Your task to perform on an android device: Search for "bose soundlink" on walmart, select the first entry, add it to the cart, then select checkout. Image 0: 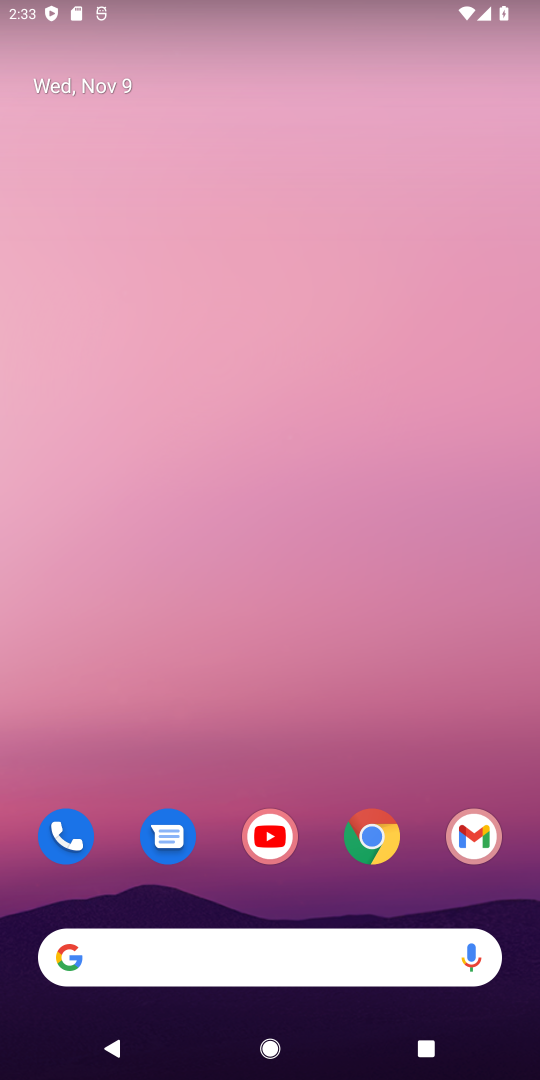
Step 0: click (388, 828)
Your task to perform on an android device: Search for "bose soundlink" on walmart, select the first entry, add it to the cart, then select checkout. Image 1: 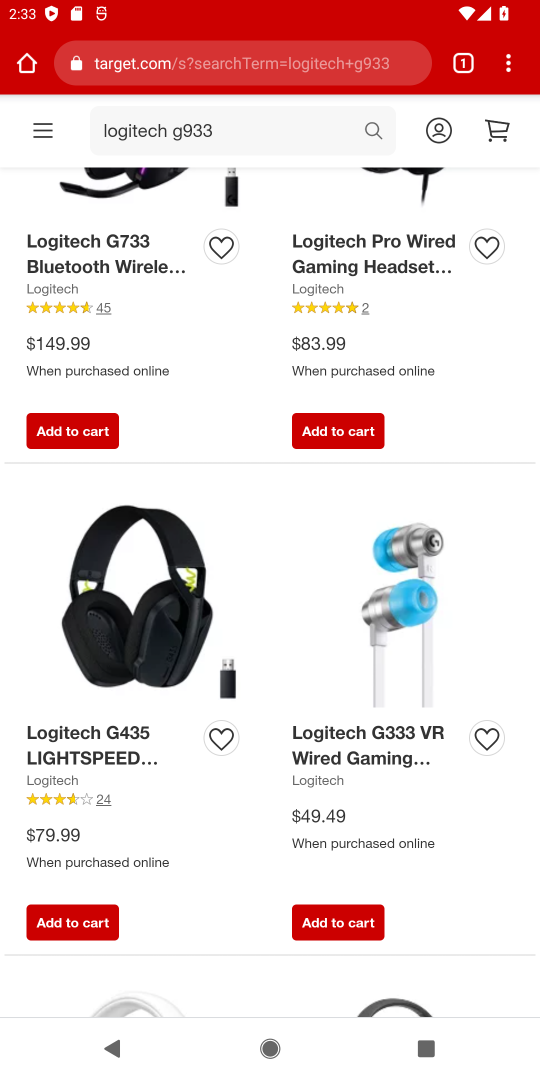
Step 1: click (223, 70)
Your task to perform on an android device: Search for "bose soundlink" on walmart, select the first entry, add it to the cart, then select checkout. Image 2: 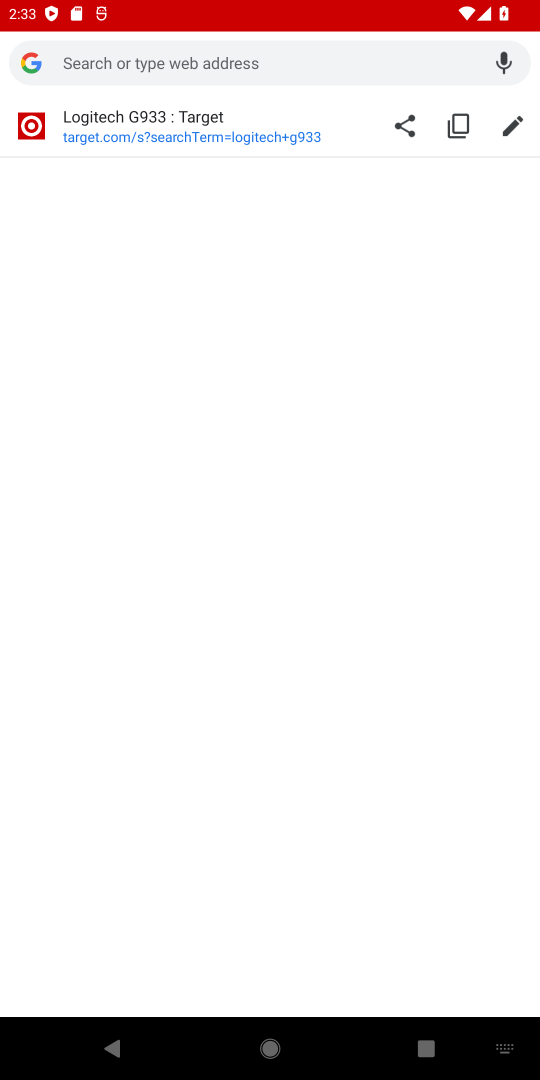
Step 2: type "walmart"
Your task to perform on an android device: Search for "bose soundlink" on walmart, select the first entry, add it to the cart, then select checkout. Image 3: 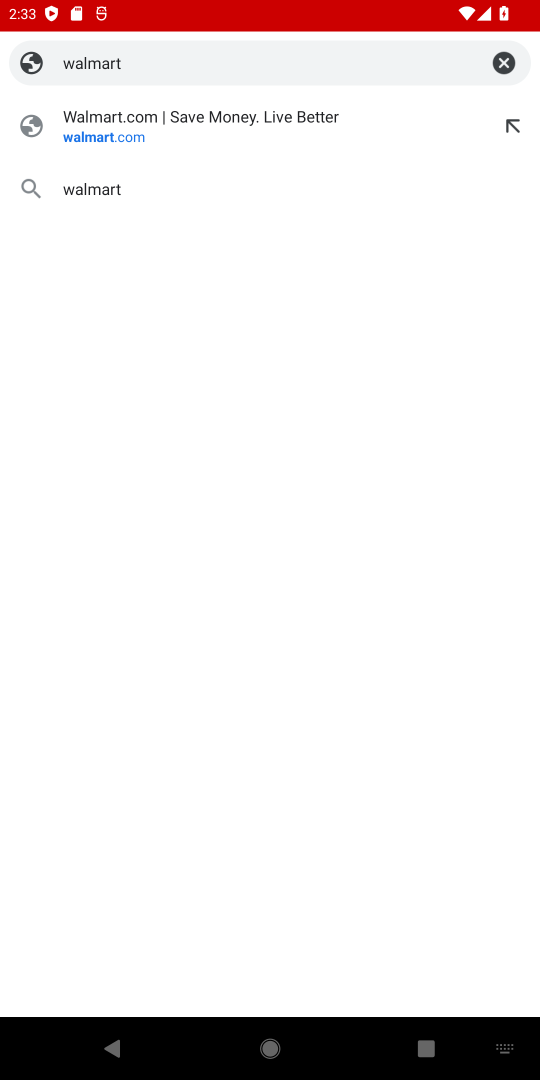
Step 3: press enter
Your task to perform on an android device: Search for "bose soundlink" on walmart, select the first entry, add it to the cart, then select checkout. Image 4: 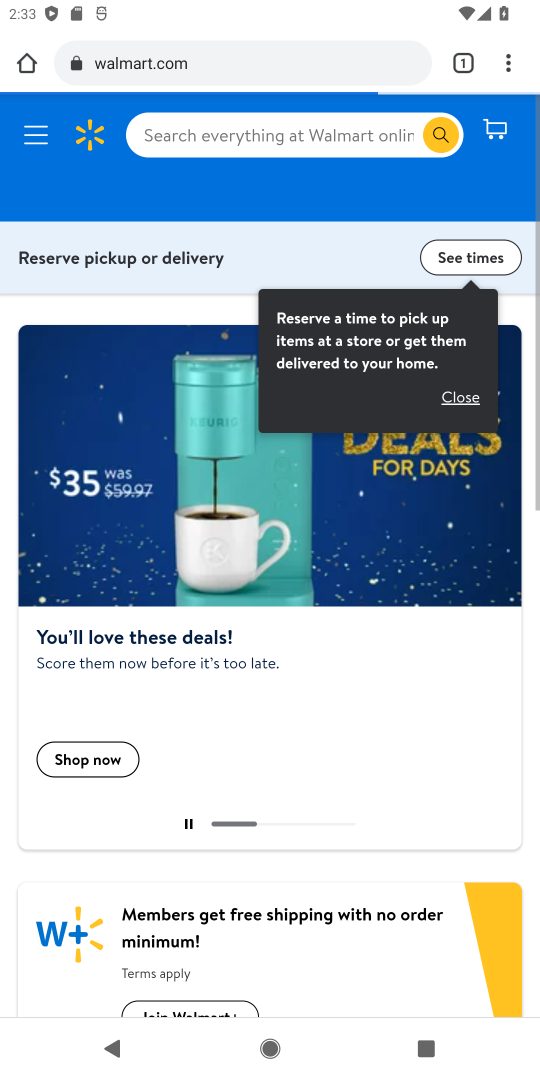
Step 4: click (211, 144)
Your task to perform on an android device: Search for "bose soundlink" on walmart, select the first entry, add it to the cart, then select checkout. Image 5: 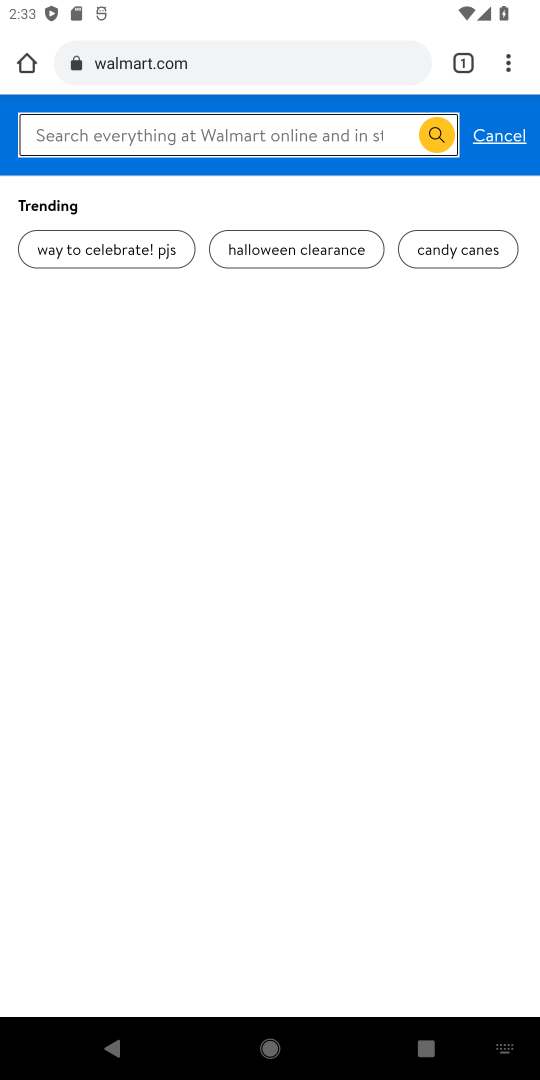
Step 5: type "bose soundlink"
Your task to perform on an android device: Search for "bose soundlink" on walmart, select the first entry, add it to the cart, then select checkout. Image 6: 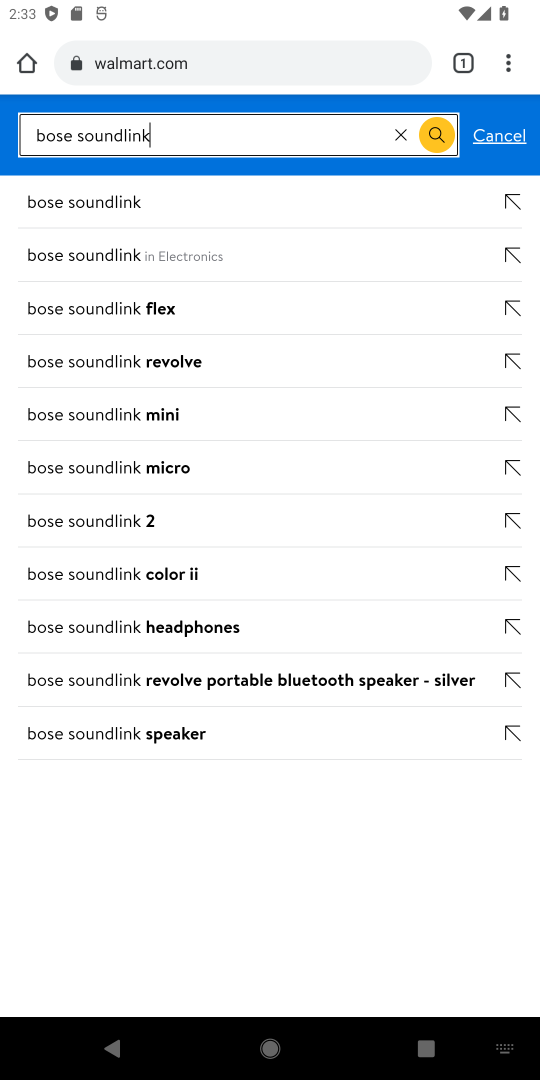
Step 6: click (153, 199)
Your task to perform on an android device: Search for "bose soundlink" on walmart, select the first entry, add it to the cart, then select checkout. Image 7: 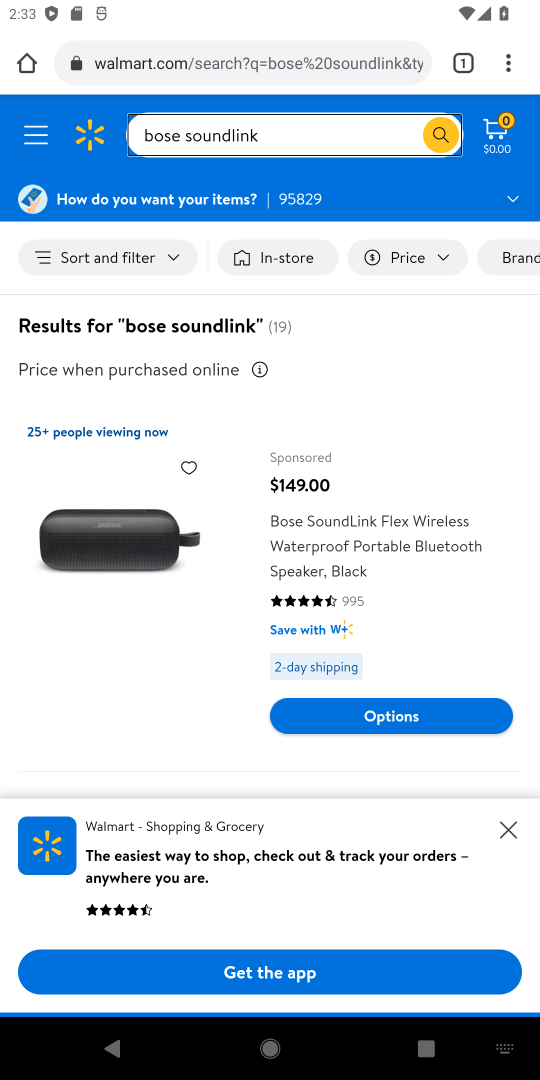
Step 7: click (303, 468)
Your task to perform on an android device: Search for "bose soundlink" on walmart, select the first entry, add it to the cart, then select checkout. Image 8: 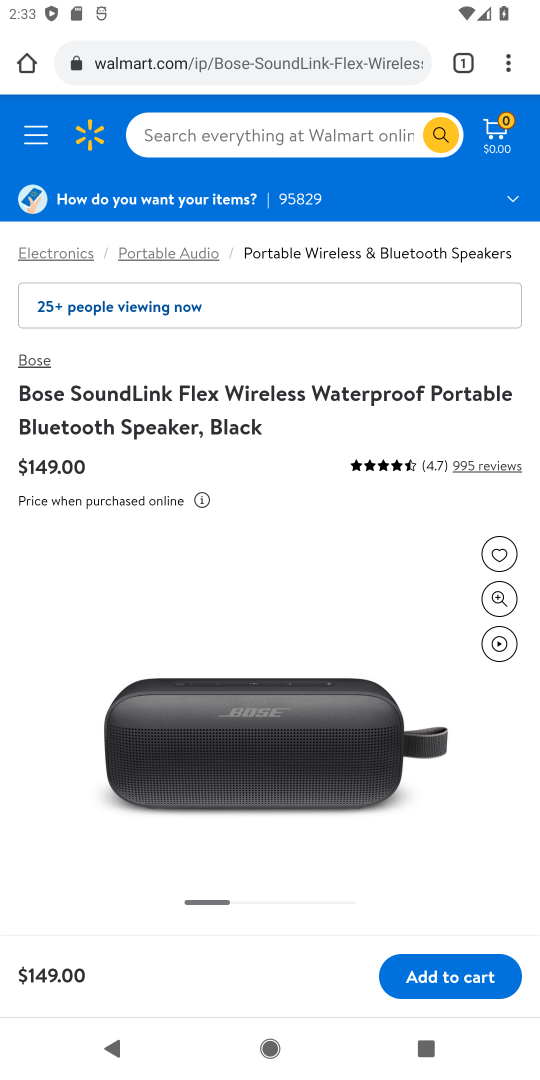
Step 8: drag from (365, 632) to (303, 320)
Your task to perform on an android device: Search for "bose soundlink" on walmart, select the first entry, add it to the cart, then select checkout. Image 9: 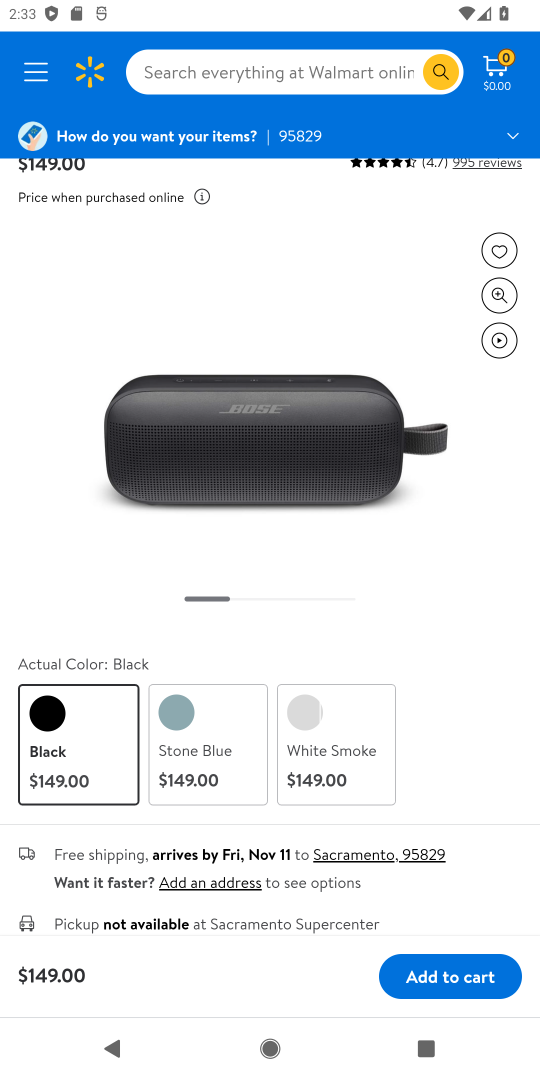
Step 9: click (457, 987)
Your task to perform on an android device: Search for "bose soundlink" on walmart, select the first entry, add it to the cart, then select checkout. Image 10: 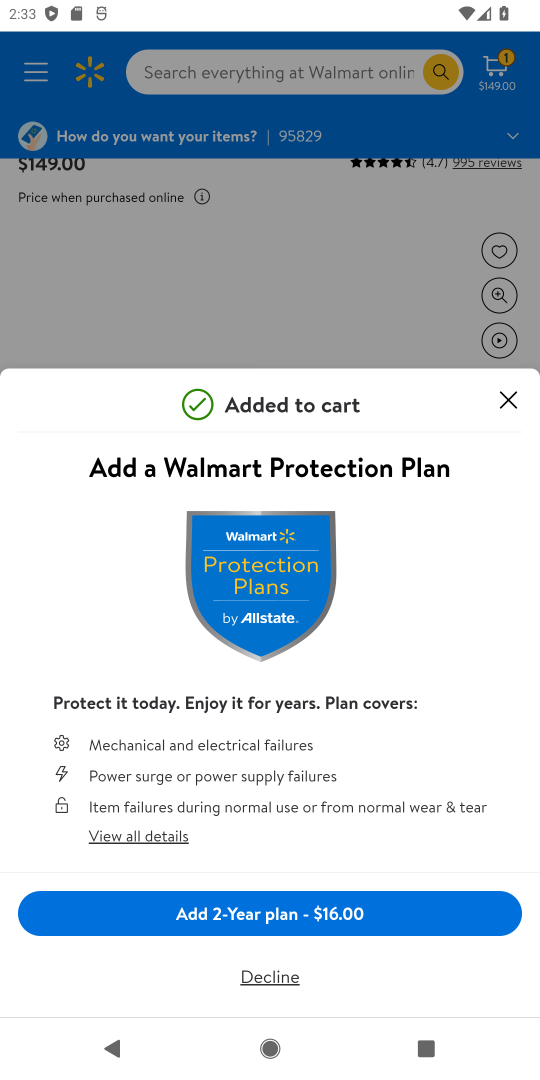
Step 10: click (261, 979)
Your task to perform on an android device: Search for "bose soundlink" on walmart, select the first entry, add it to the cart, then select checkout. Image 11: 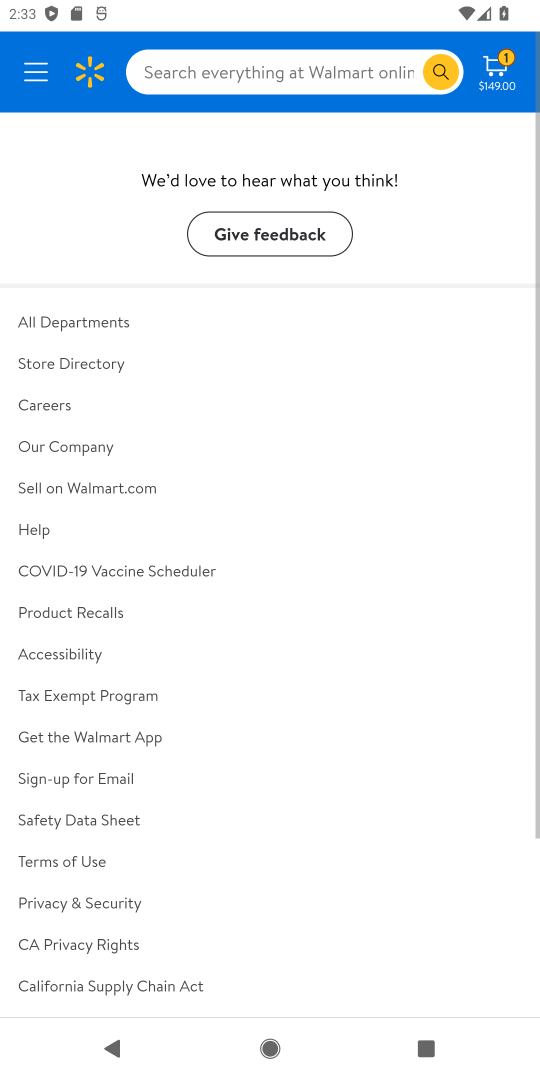
Step 11: click (497, 81)
Your task to perform on an android device: Search for "bose soundlink" on walmart, select the first entry, add it to the cart, then select checkout. Image 12: 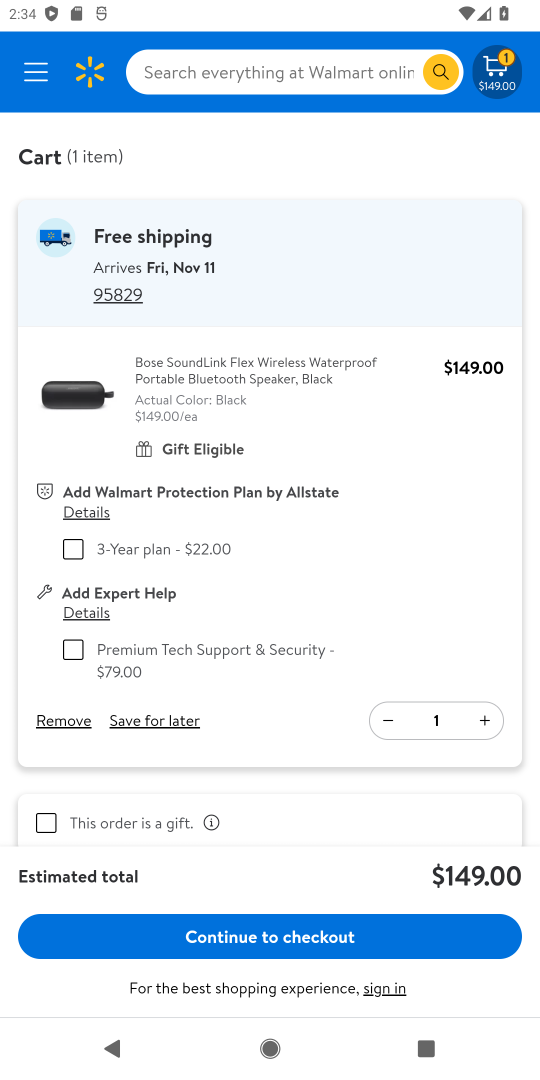
Step 12: click (299, 950)
Your task to perform on an android device: Search for "bose soundlink" on walmart, select the first entry, add it to the cart, then select checkout. Image 13: 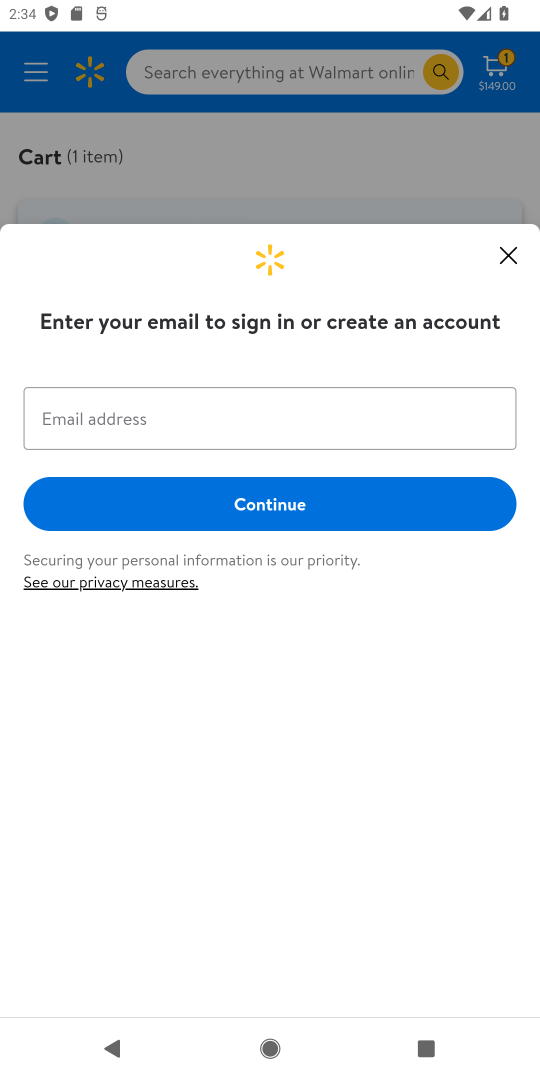
Step 13: task complete